Your task to perform on an android device: Go to sound settings Image 0: 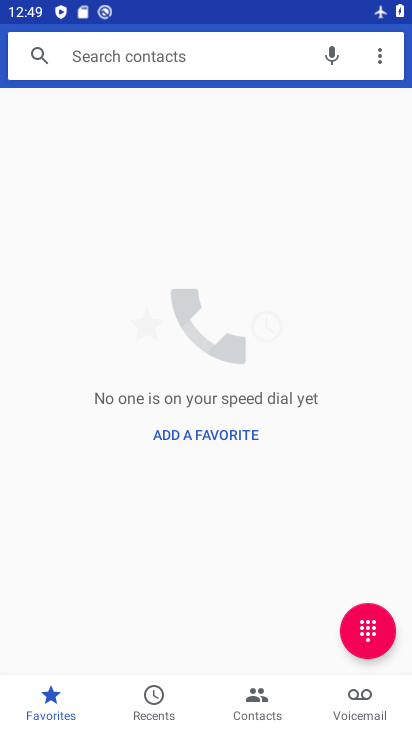
Step 0: press home button
Your task to perform on an android device: Go to sound settings Image 1: 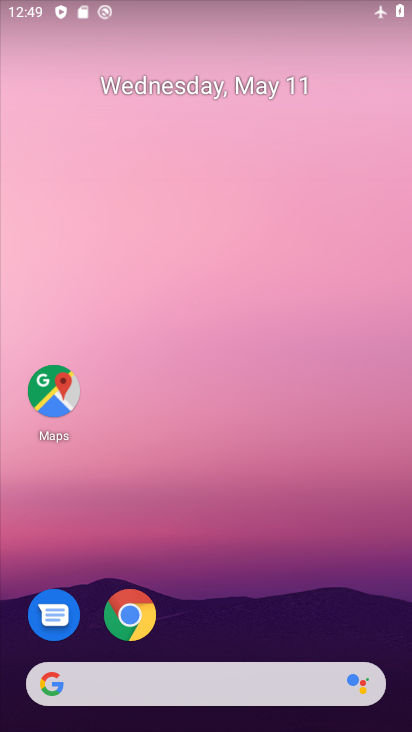
Step 1: drag from (367, 597) to (328, 158)
Your task to perform on an android device: Go to sound settings Image 2: 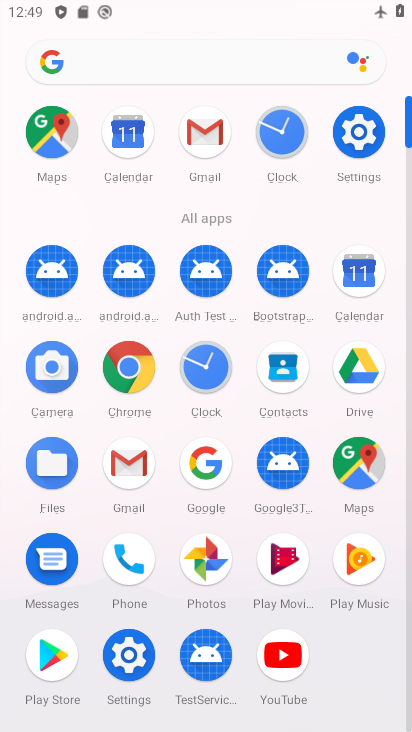
Step 2: click (352, 147)
Your task to perform on an android device: Go to sound settings Image 3: 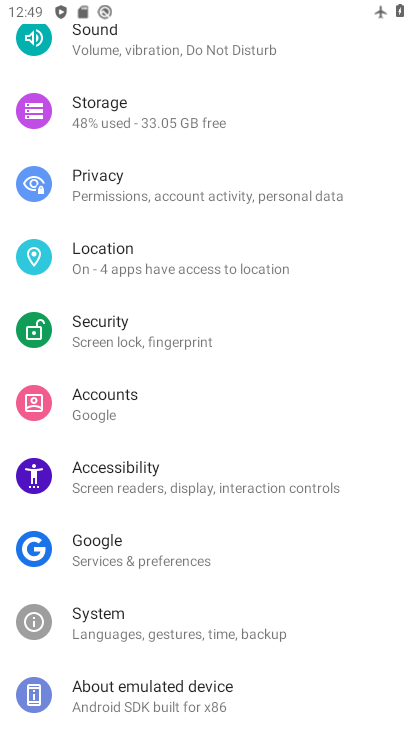
Step 3: drag from (215, 545) to (260, 235)
Your task to perform on an android device: Go to sound settings Image 4: 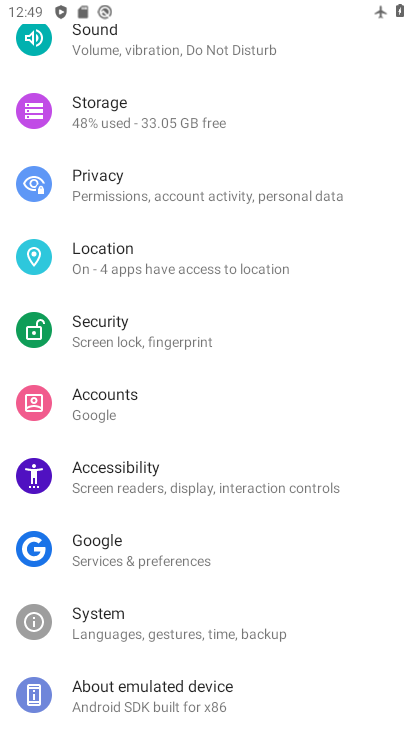
Step 4: drag from (230, 166) to (236, 559)
Your task to perform on an android device: Go to sound settings Image 5: 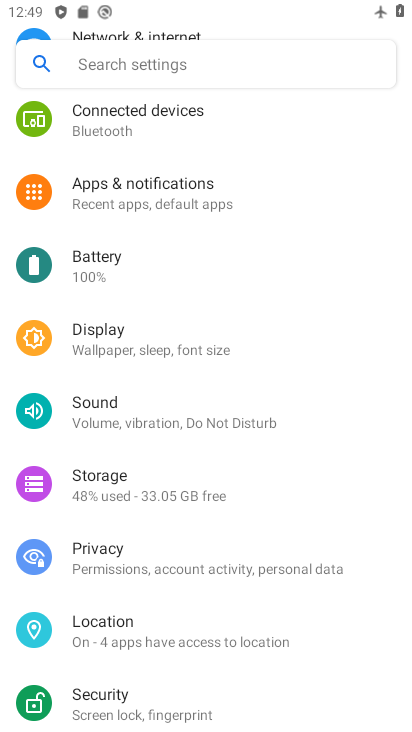
Step 5: drag from (268, 149) to (238, 651)
Your task to perform on an android device: Go to sound settings Image 6: 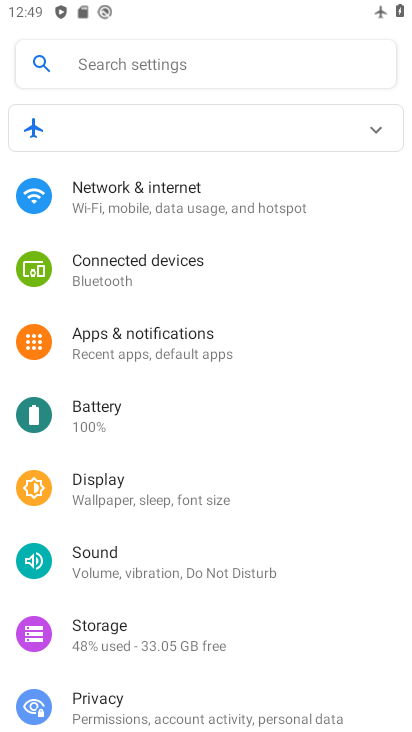
Step 6: drag from (285, 253) to (322, 677)
Your task to perform on an android device: Go to sound settings Image 7: 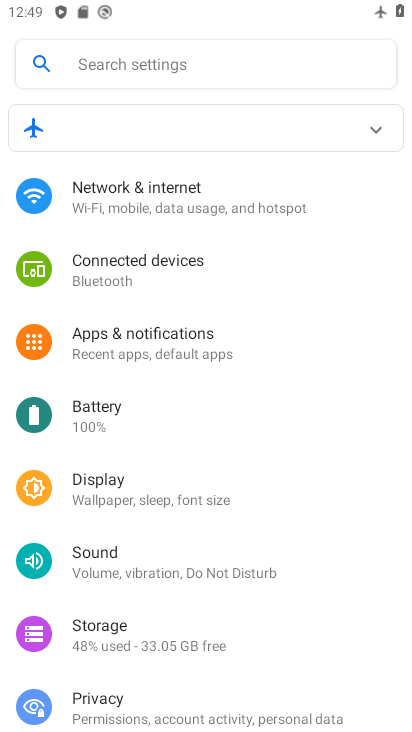
Step 7: click (79, 574)
Your task to perform on an android device: Go to sound settings Image 8: 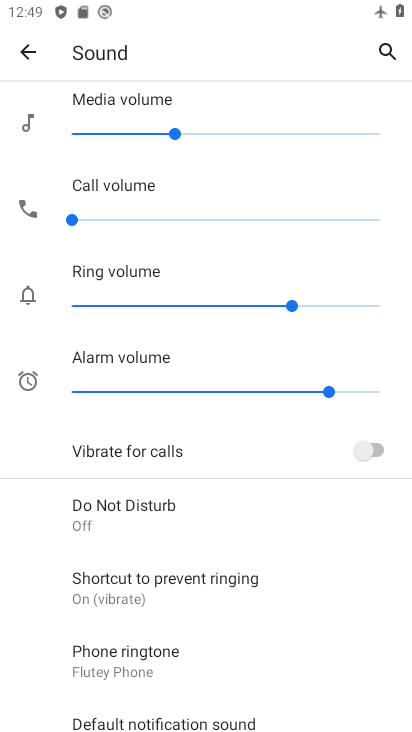
Step 8: task complete